Your task to perform on an android device: turn on improve location accuracy Image 0: 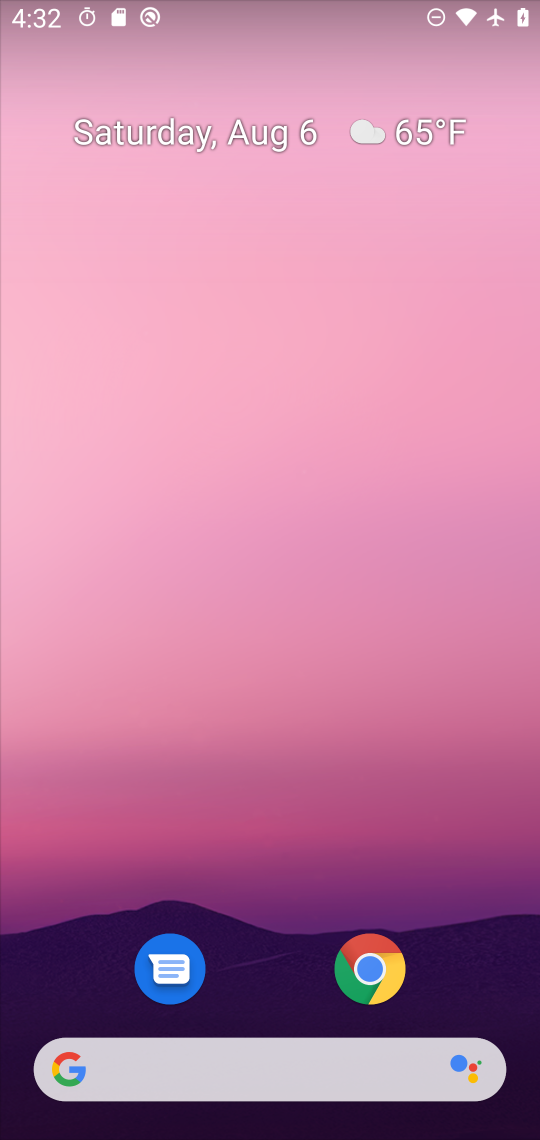
Step 0: drag from (277, 923) to (403, 0)
Your task to perform on an android device: turn on improve location accuracy Image 1: 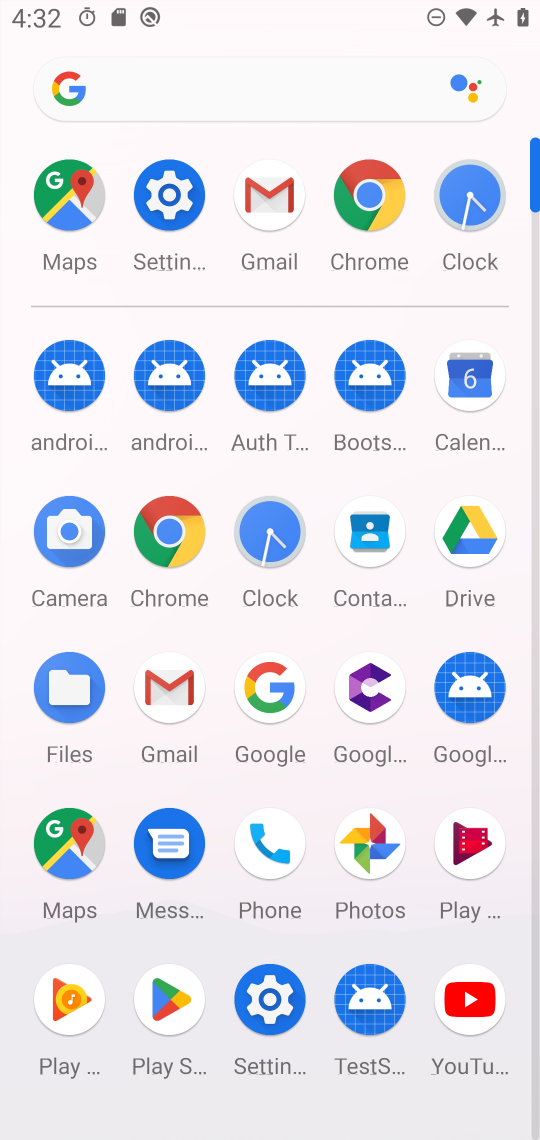
Step 1: click (178, 189)
Your task to perform on an android device: turn on improve location accuracy Image 2: 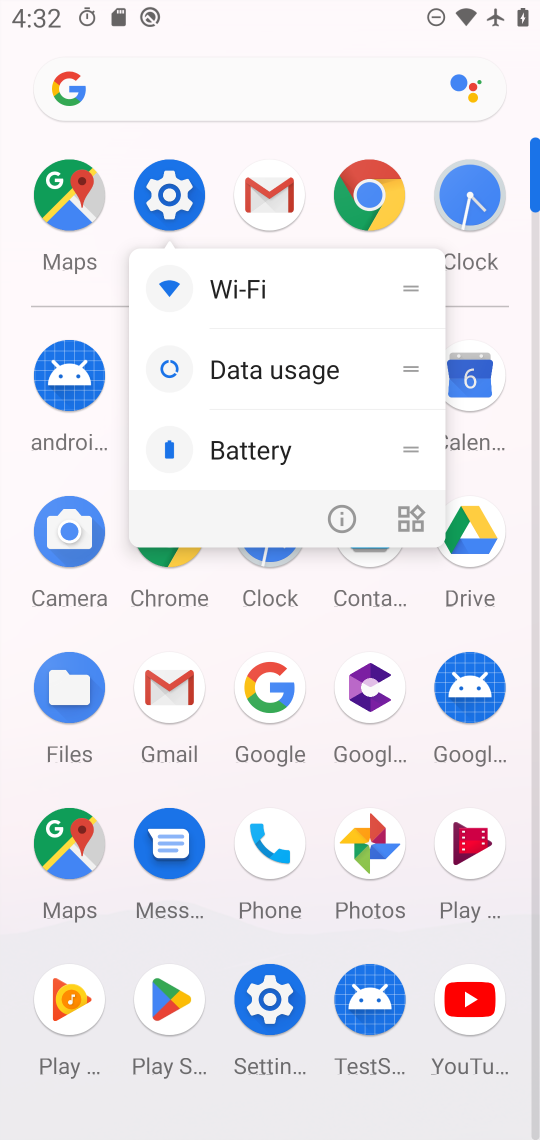
Step 2: click (166, 202)
Your task to perform on an android device: turn on improve location accuracy Image 3: 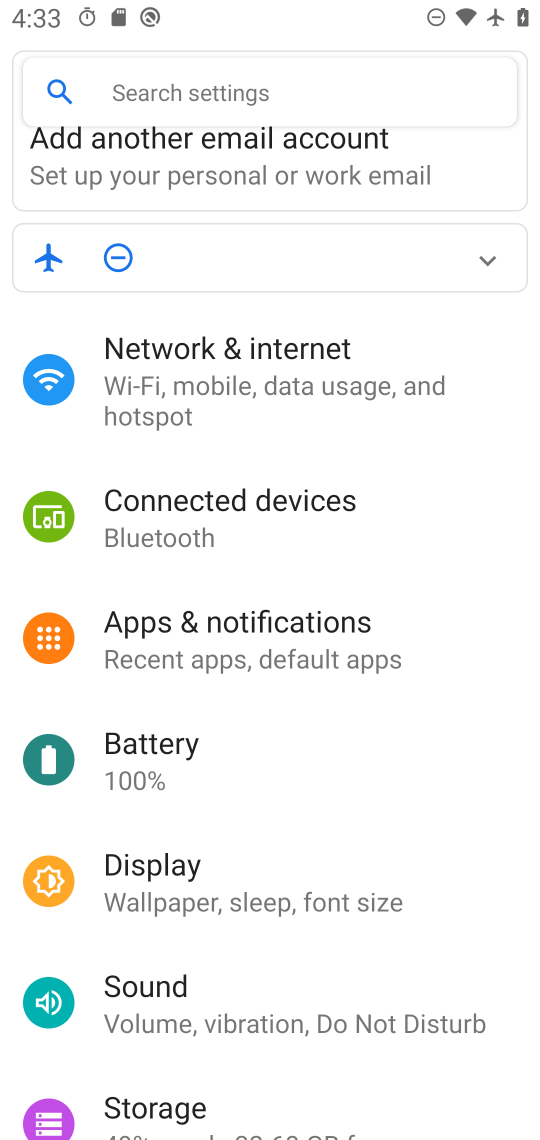
Step 3: drag from (176, 811) to (182, 231)
Your task to perform on an android device: turn on improve location accuracy Image 4: 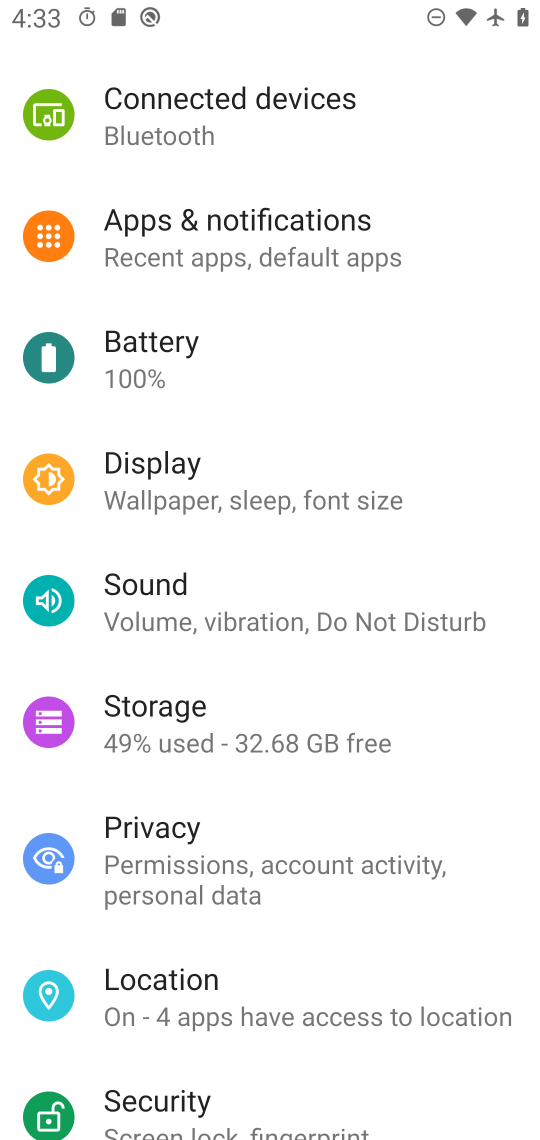
Step 4: click (164, 1023)
Your task to perform on an android device: turn on improve location accuracy Image 5: 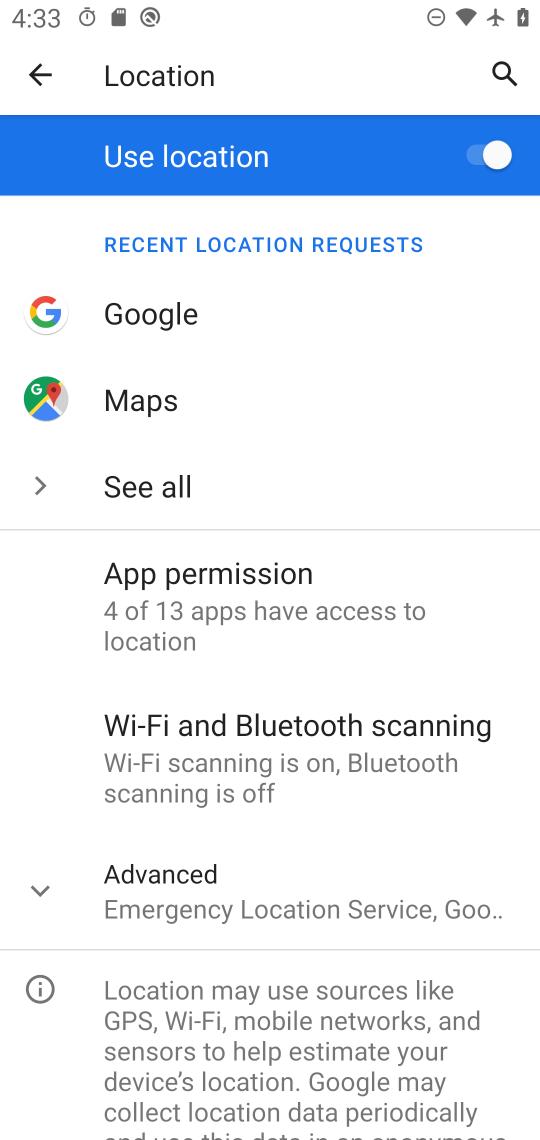
Step 5: click (39, 897)
Your task to perform on an android device: turn on improve location accuracy Image 6: 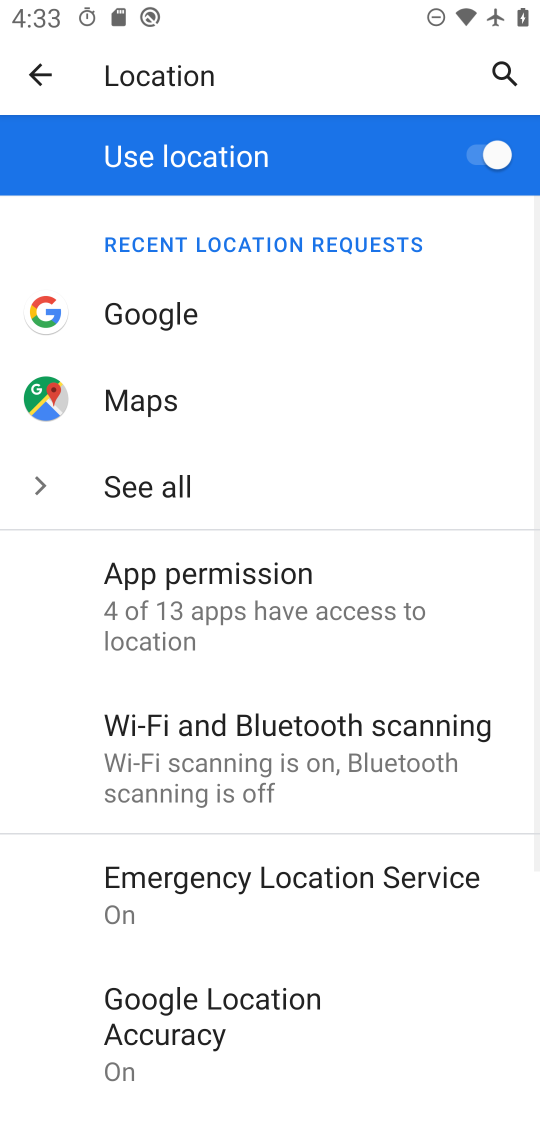
Step 6: drag from (57, 860) to (126, 106)
Your task to perform on an android device: turn on improve location accuracy Image 7: 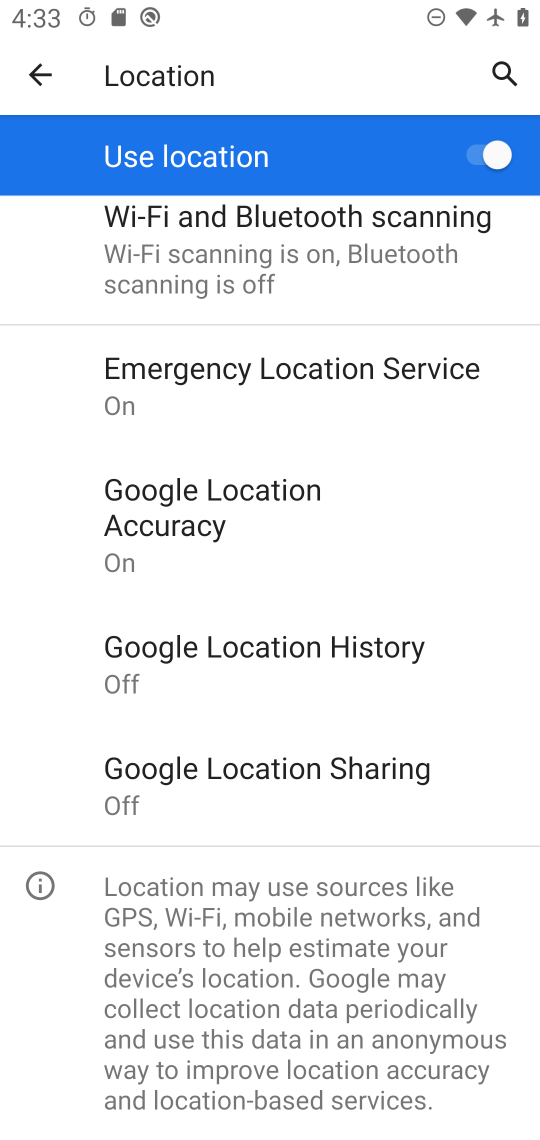
Step 7: drag from (60, 861) to (160, 244)
Your task to perform on an android device: turn on improve location accuracy Image 8: 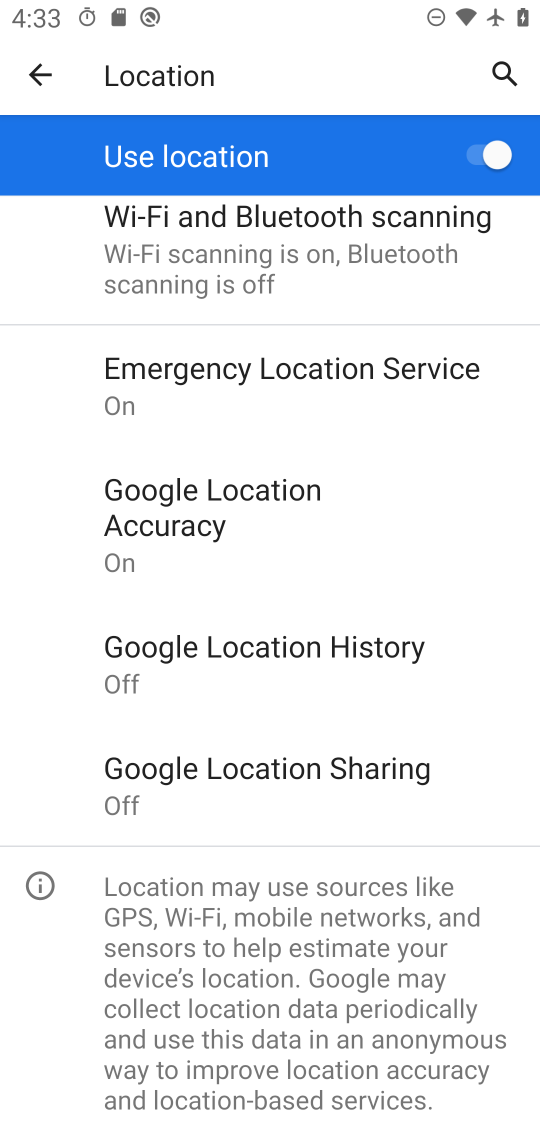
Step 8: drag from (70, 884) to (63, 460)
Your task to perform on an android device: turn on improve location accuracy Image 9: 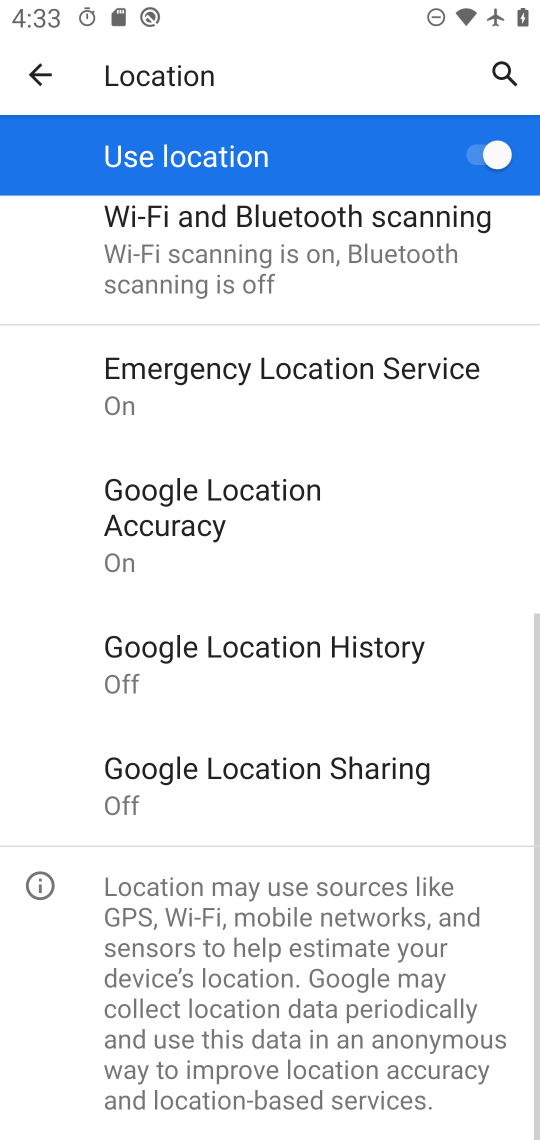
Step 9: drag from (55, 295) to (291, 138)
Your task to perform on an android device: turn on improve location accuracy Image 10: 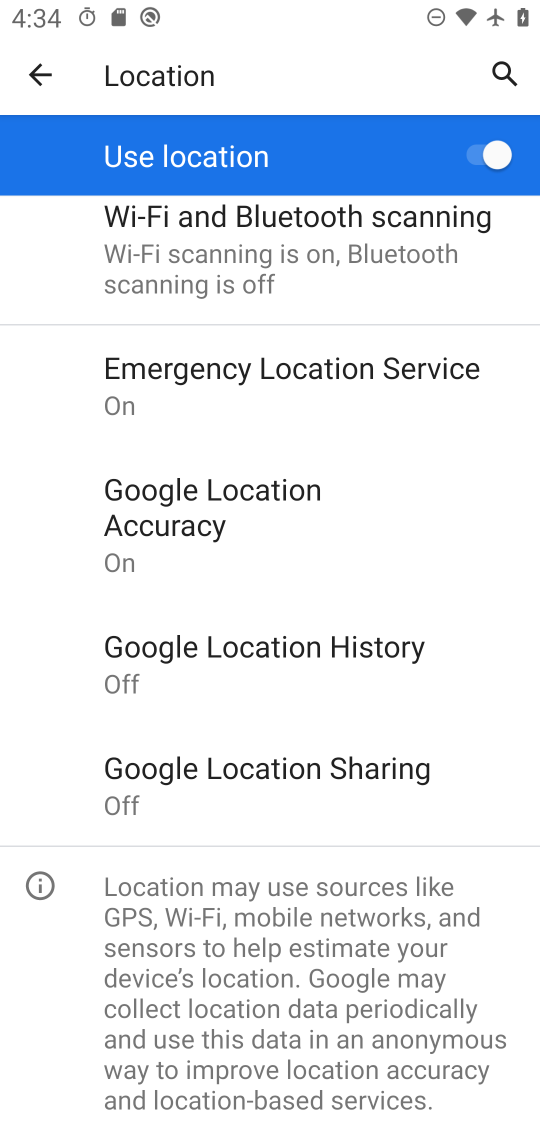
Step 10: click (249, 489)
Your task to perform on an android device: turn on improve location accuracy Image 11: 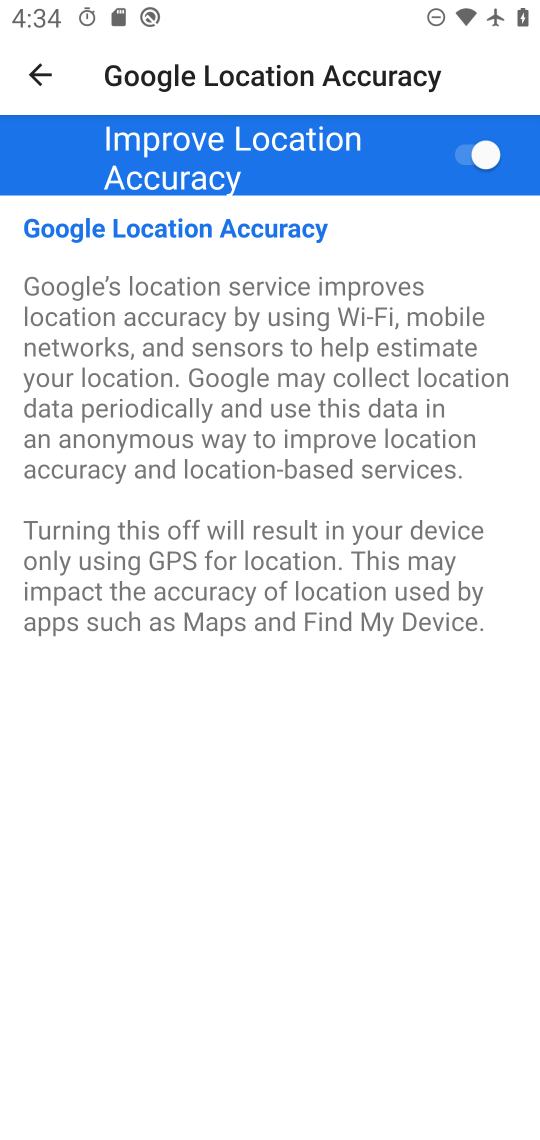
Step 11: task complete